Your task to perform on an android device: Search for usb-b on walmart, select the first entry, add it to the cart, then select checkout. Image 0: 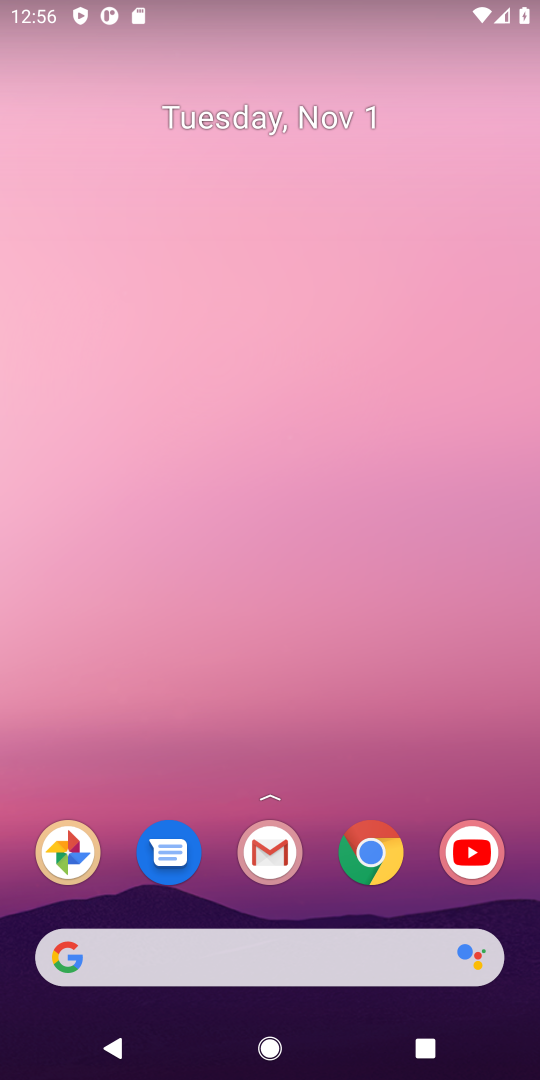
Step 0: click (364, 855)
Your task to perform on an android device: Search for usb-b on walmart, select the first entry, add it to the cart, then select checkout. Image 1: 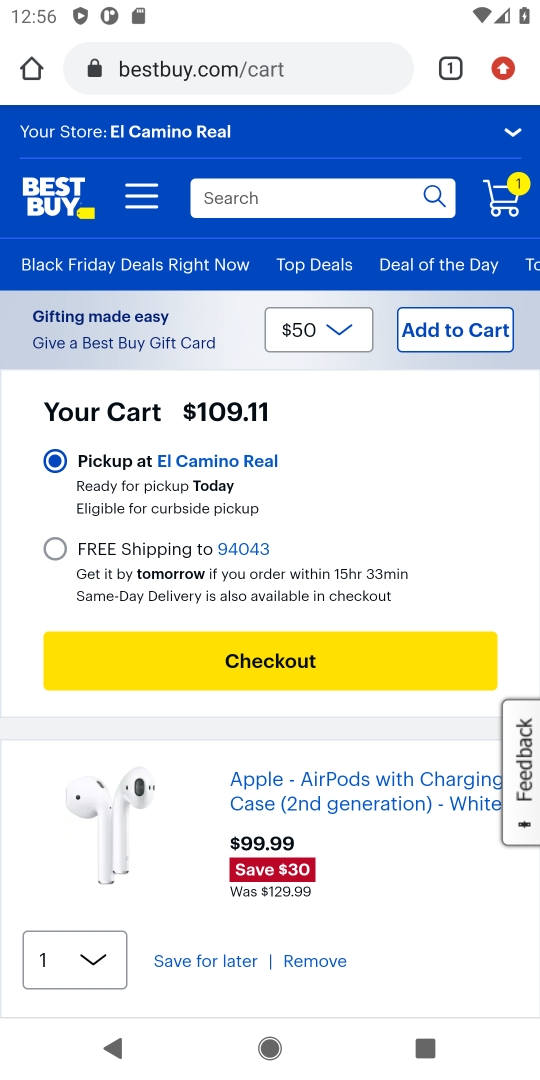
Step 1: click (333, 50)
Your task to perform on an android device: Search for usb-b on walmart, select the first entry, add it to the cart, then select checkout. Image 2: 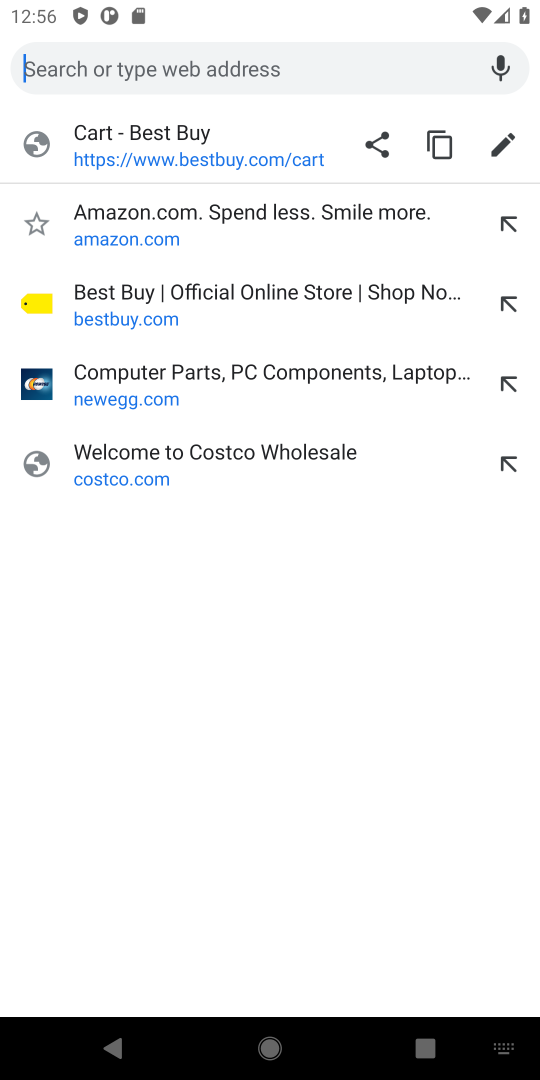
Step 2: type "walmart"
Your task to perform on an android device: Search for usb-b on walmart, select the first entry, add it to the cart, then select checkout. Image 3: 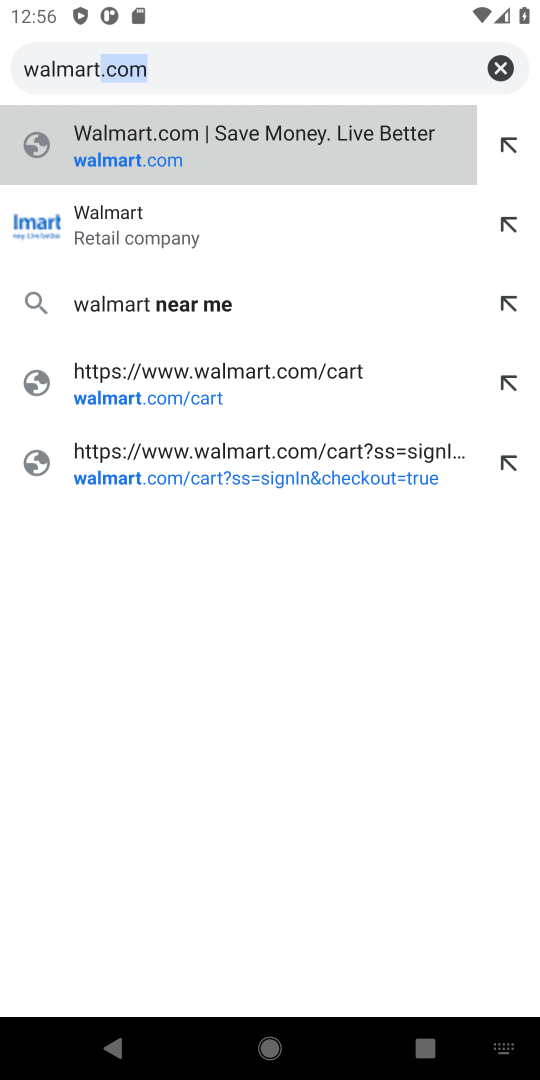
Step 3: type ""
Your task to perform on an android device: Search for usb-b on walmart, select the first entry, add it to the cart, then select checkout. Image 4: 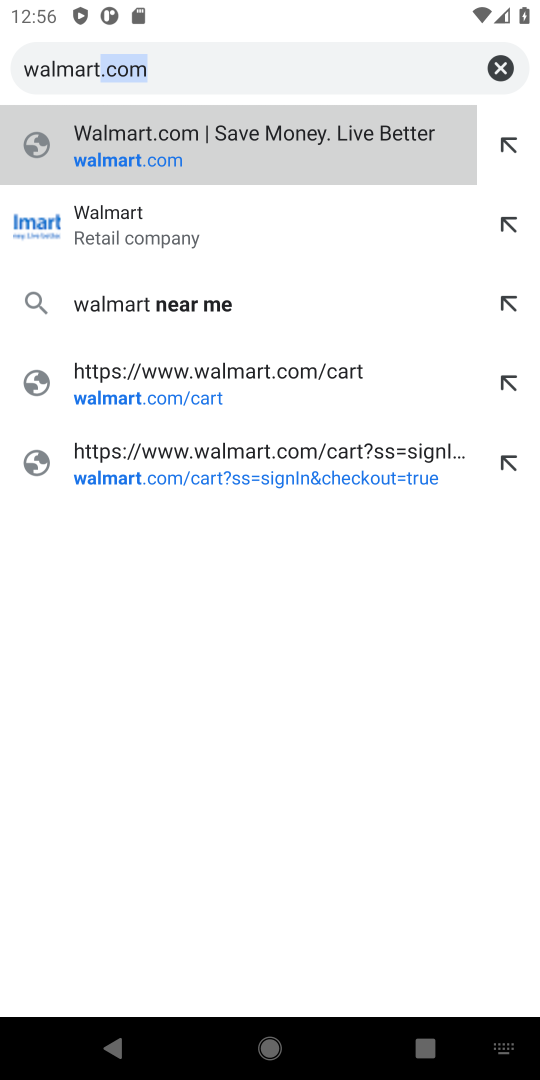
Step 4: press enter
Your task to perform on an android device: Search for usb-b on walmart, select the first entry, add it to the cart, then select checkout. Image 5: 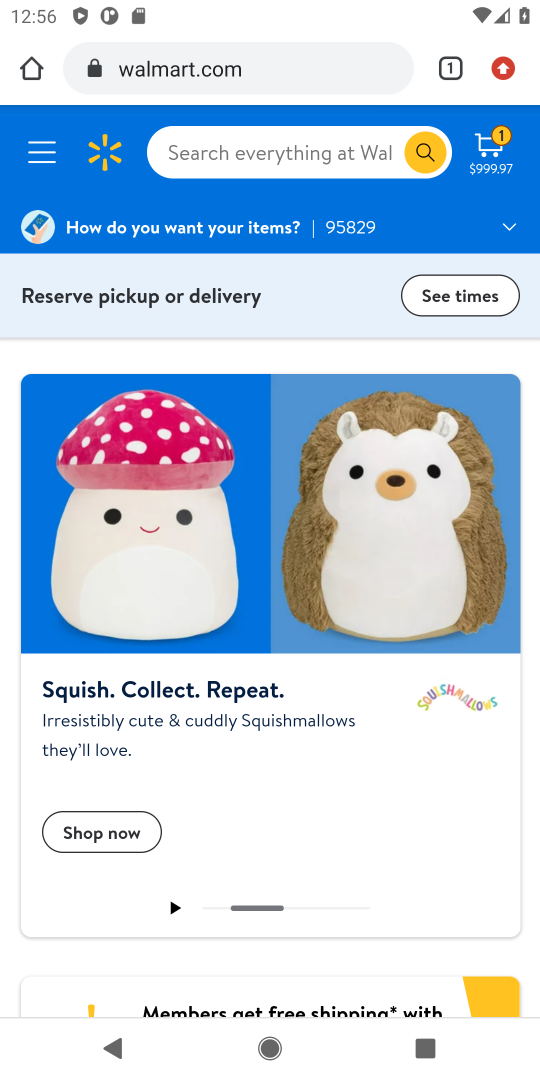
Step 5: click (312, 155)
Your task to perform on an android device: Search for usb-b on walmart, select the first entry, add it to the cart, then select checkout. Image 6: 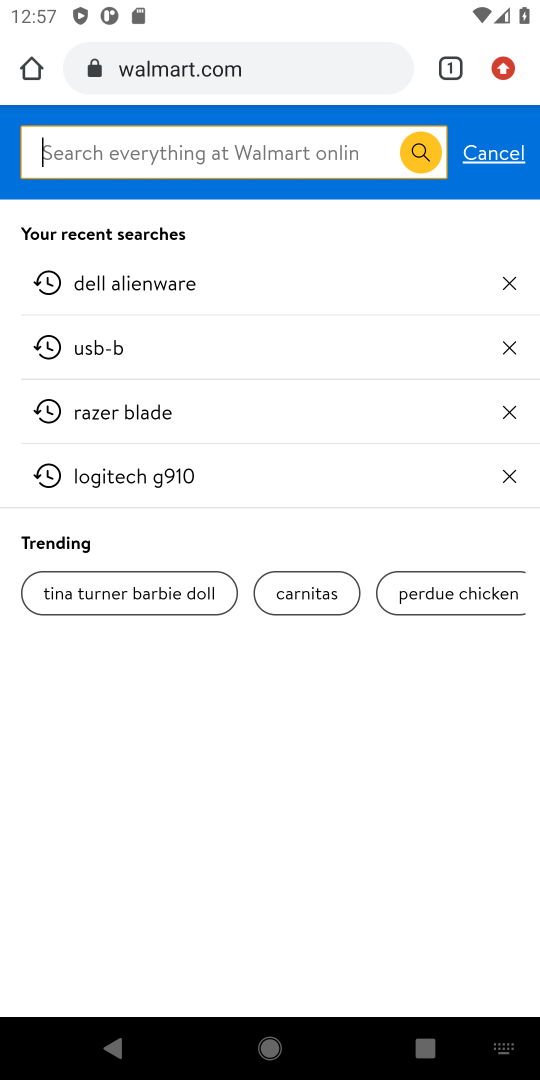
Step 6: type "usb-b"
Your task to perform on an android device: Search for usb-b on walmart, select the first entry, add it to the cart, then select checkout. Image 7: 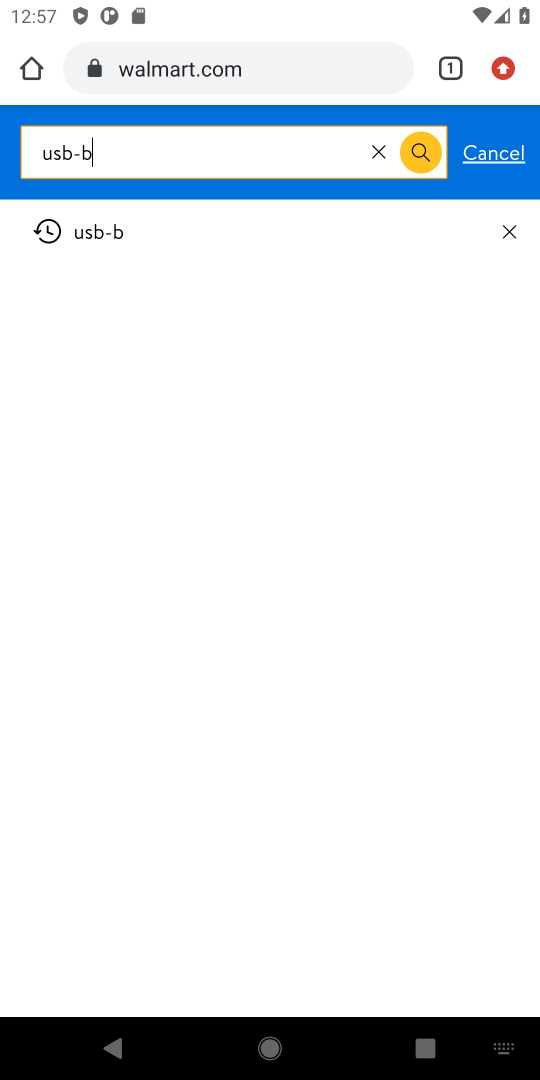
Step 7: type ""
Your task to perform on an android device: Search for usb-b on walmart, select the first entry, add it to the cart, then select checkout. Image 8: 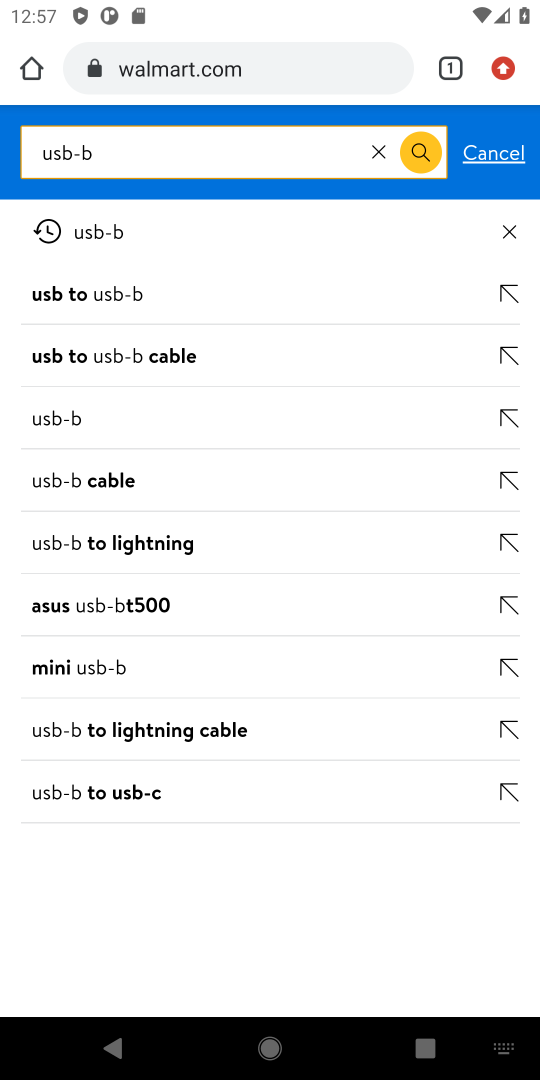
Step 8: press enter
Your task to perform on an android device: Search for usb-b on walmart, select the first entry, add it to the cart, then select checkout. Image 9: 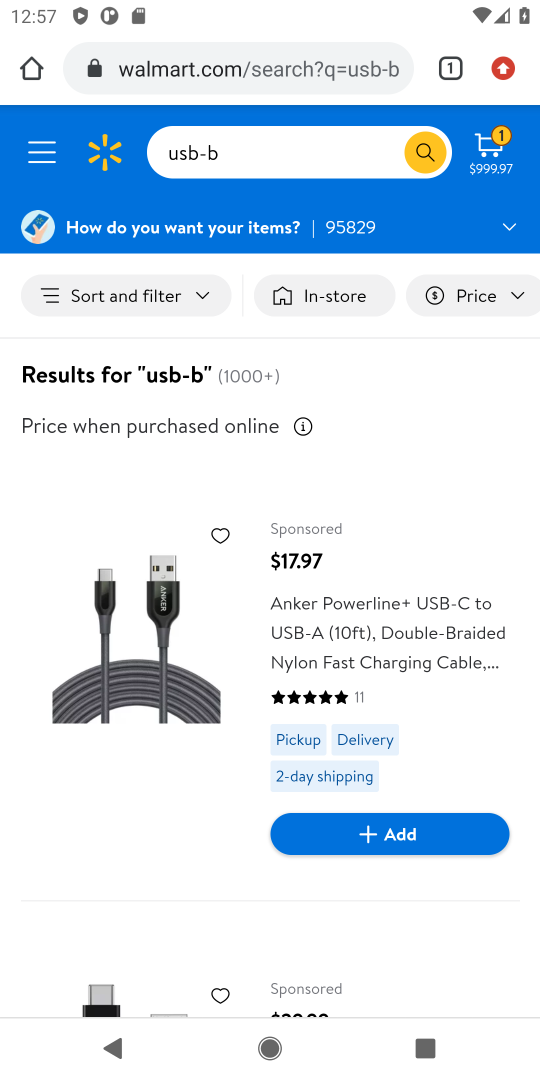
Step 9: drag from (332, 884) to (328, 548)
Your task to perform on an android device: Search for usb-b on walmart, select the first entry, add it to the cart, then select checkout. Image 10: 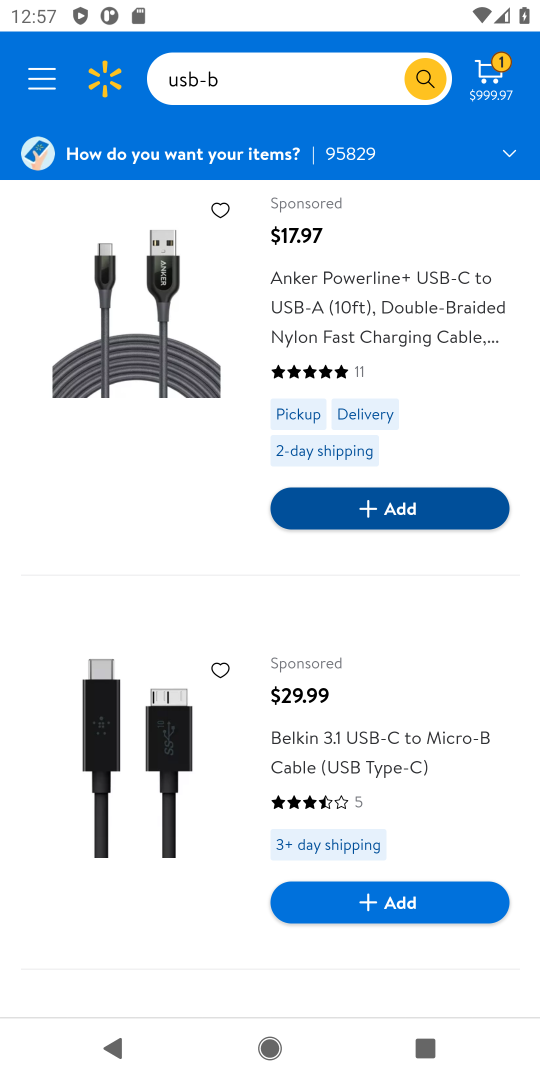
Step 10: click (394, 911)
Your task to perform on an android device: Search for usb-b on walmart, select the first entry, add it to the cart, then select checkout. Image 11: 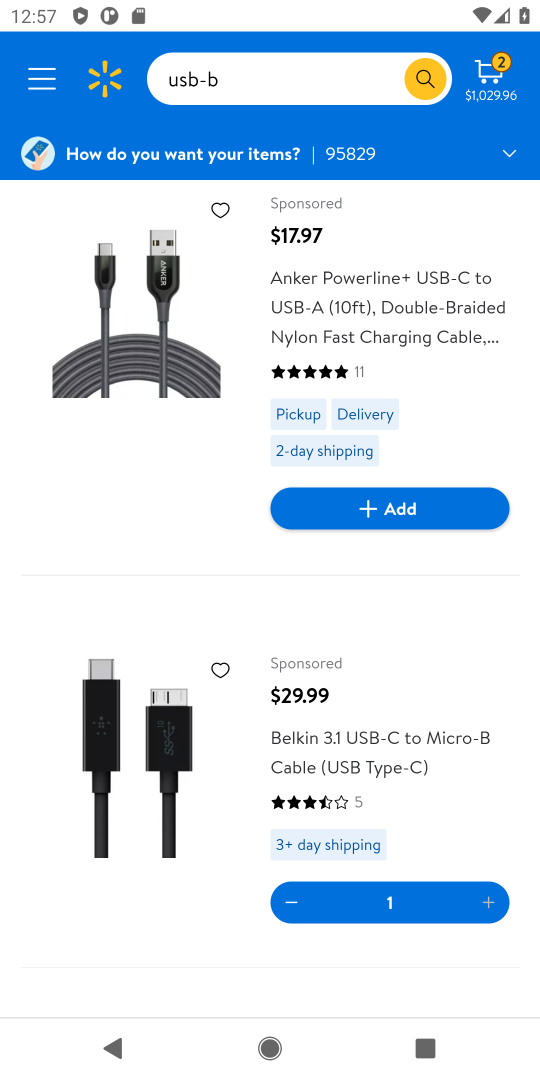
Step 11: click (488, 66)
Your task to perform on an android device: Search for usb-b on walmart, select the first entry, add it to the cart, then select checkout. Image 12: 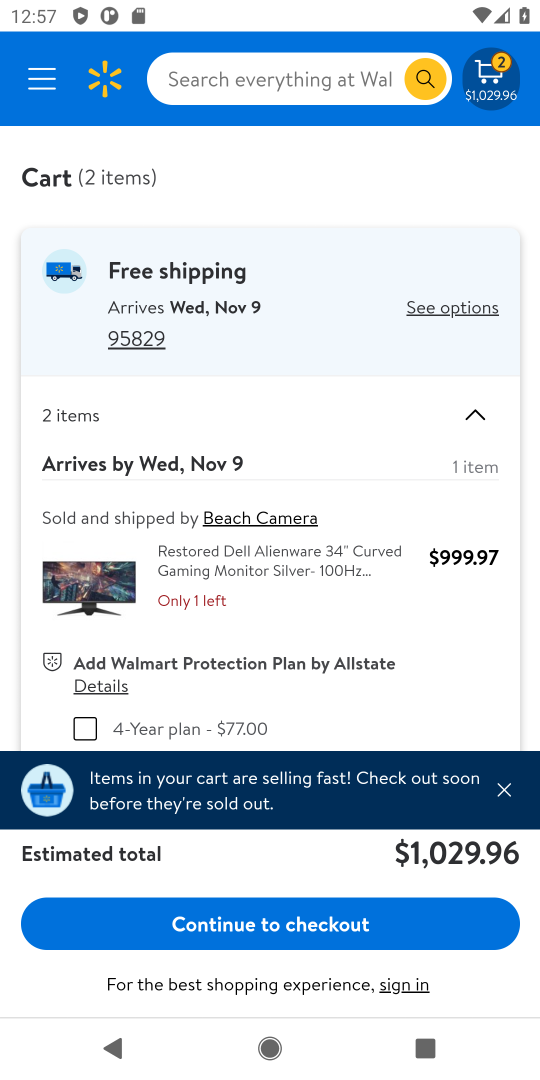
Step 12: drag from (253, 642) to (240, 395)
Your task to perform on an android device: Search for usb-b on walmart, select the first entry, add it to the cart, then select checkout. Image 13: 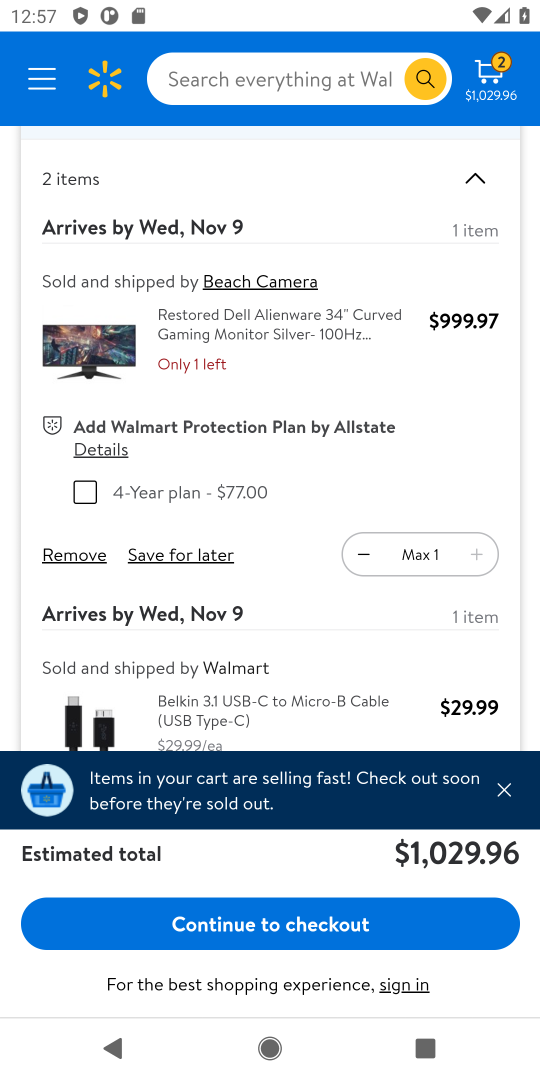
Step 13: click (72, 551)
Your task to perform on an android device: Search for usb-b on walmart, select the first entry, add it to the cart, then select checkout. Image 14: 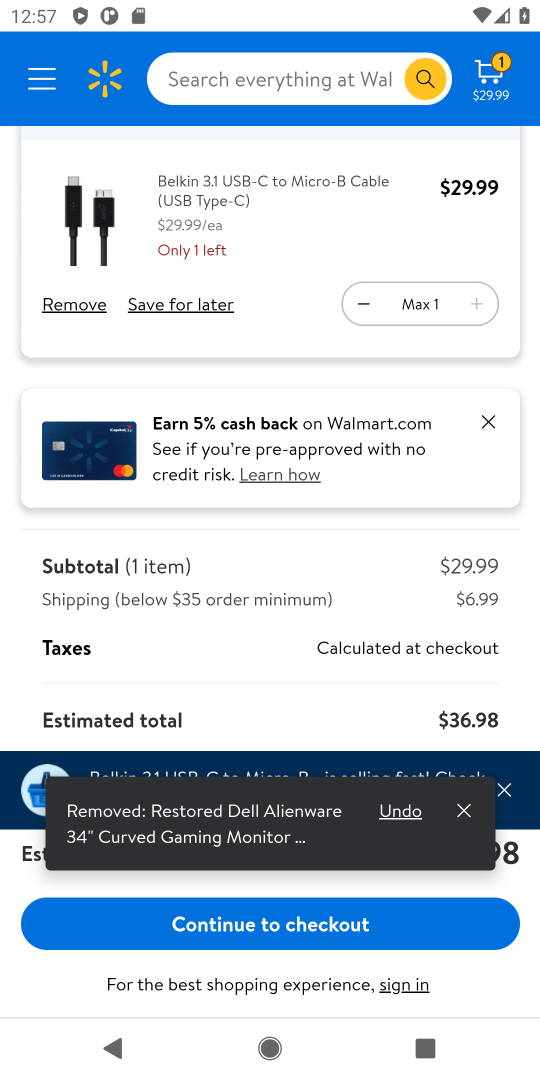
Step 14: click (408, 938)
Your task to perform on an android device: Search for usb-b on walmart, select the first entry, add it to the cart, then select checkout. Image 15: 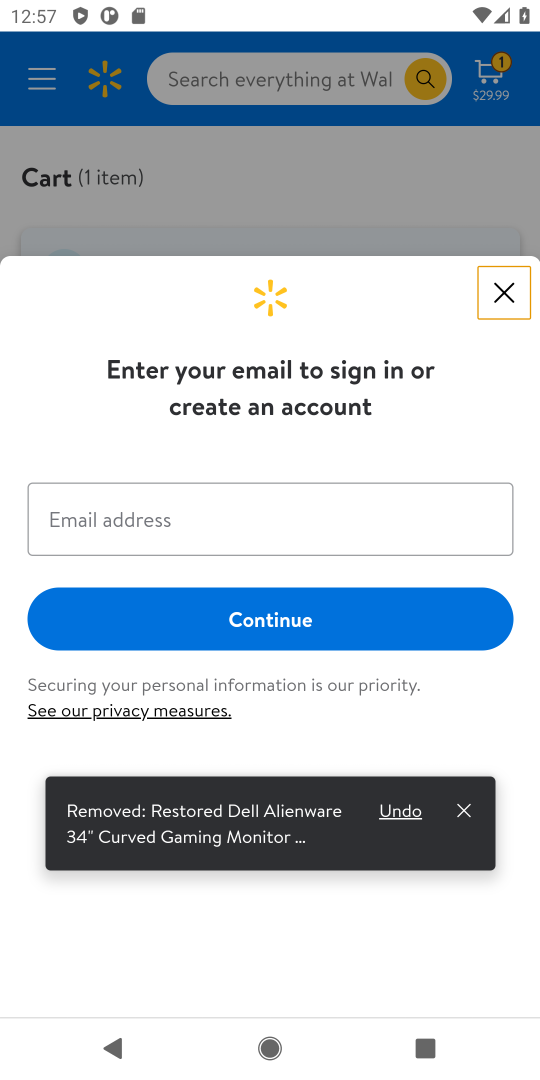
Step 15: task complete